Your task to perform on an android device: Open calendar and show me the fourth week of next month Image 0: 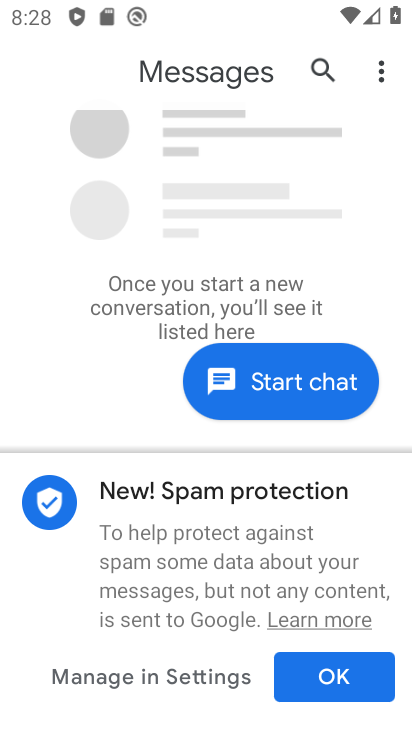
Step 0: press home button
Your task to perform on an android device: Open calendar and show me the fourth week of next month Image 1: 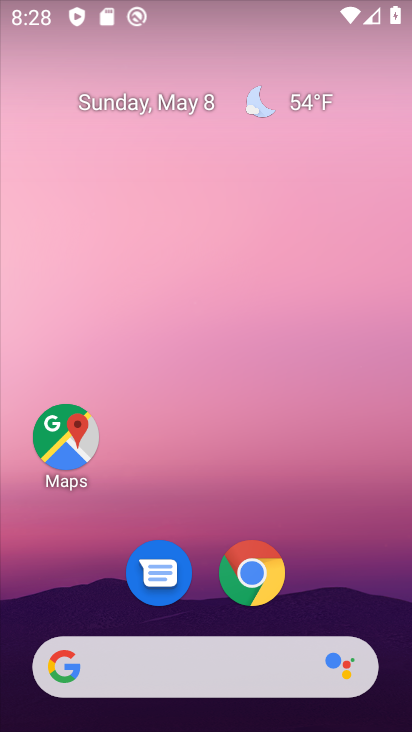
Step 1: drag from (205, 726) to (205, 112)
Your task to perform on an android device: Open calendar and show me the fourth week of next month Image 2: 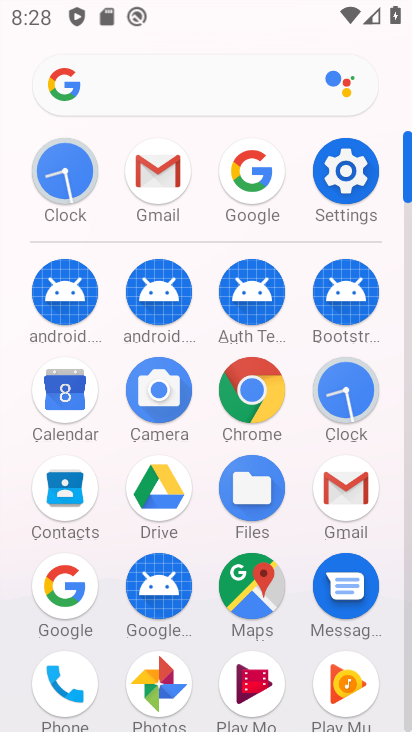
Step 2: click (54, 390)
Your task to perform on an android device: Open calendar and show me the fourth week of next month Image 3: 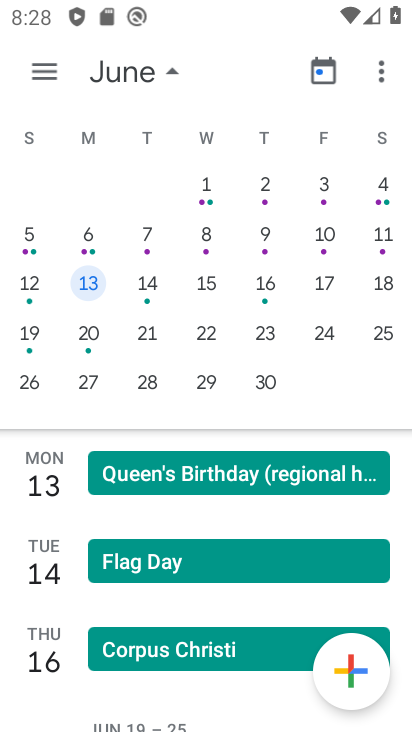
Step 3: click (90, 371)
Your task to perform on an android device: Open calendar and show me the fourth week of next month Image 4: 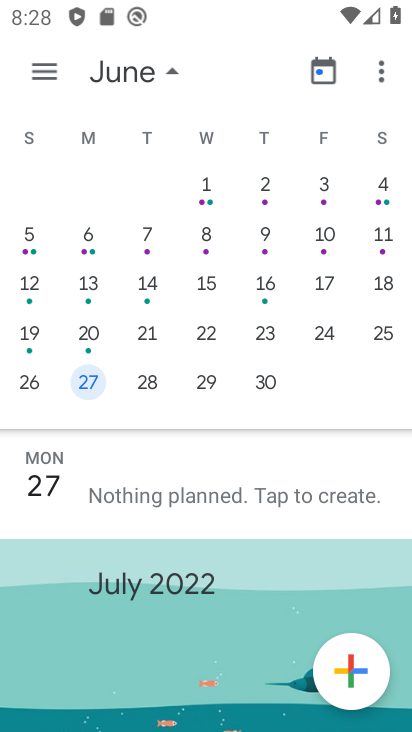
Step 4: task complete